Your task to perform on an android device: find snoozed emails in the gmail app Image 0: 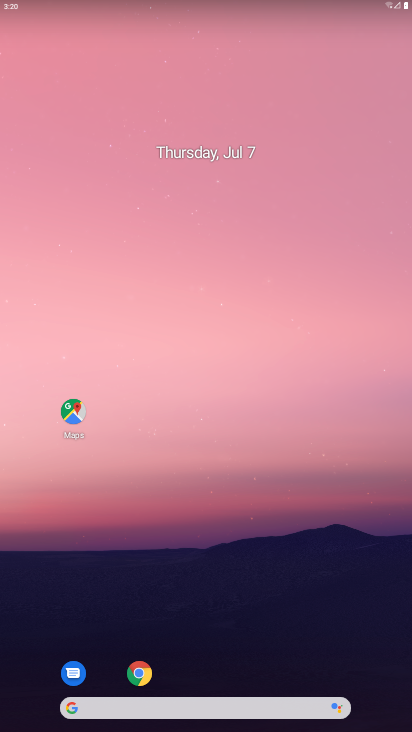
Step 0: drag from (195, 689) to (338, 190)
Your task to perform on an android device: find snoozed emails in the gmail app Image 1: 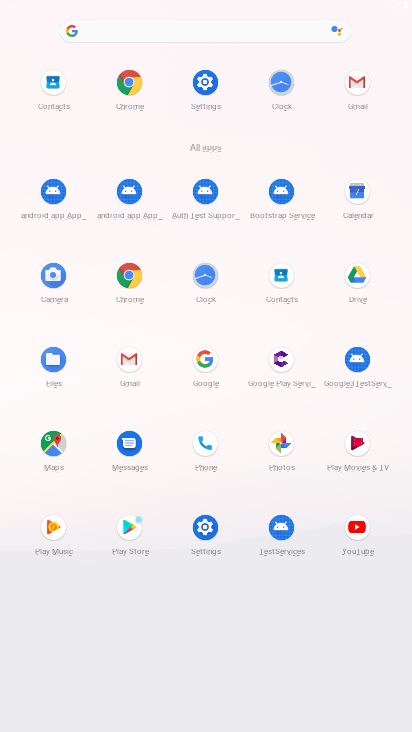
Step 1: click (352, 85)
Your task to perform on an android device: find snoozed emails in the gmail app Image 2: 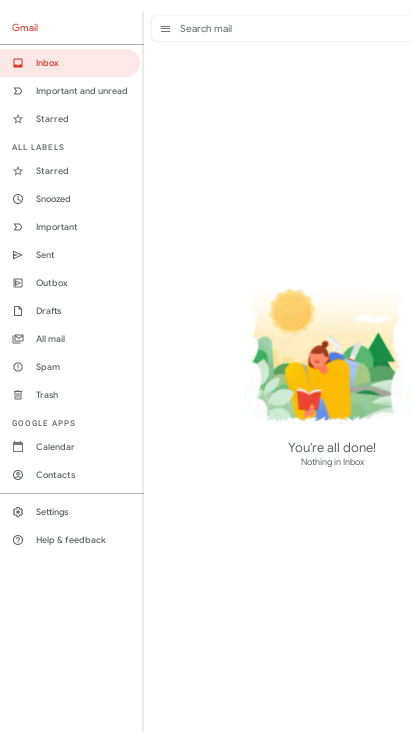
Step 2: click (56, 197)
Your task to perform on an android device: find snoozed emails in the gmail app Image 3: 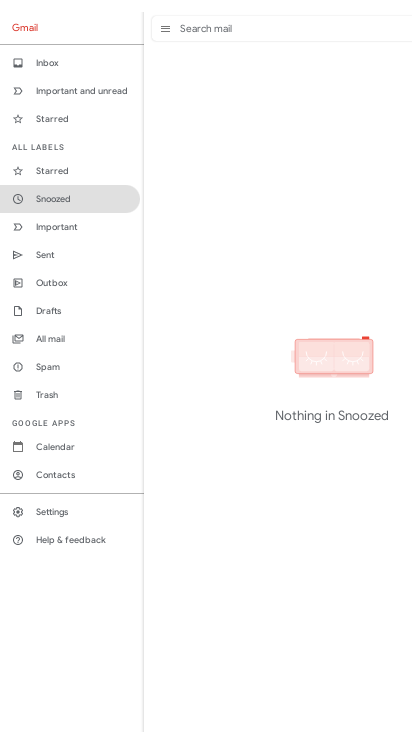
Step 3: task complete